Your task to perform on an android device: Go to notification settings Image 0: 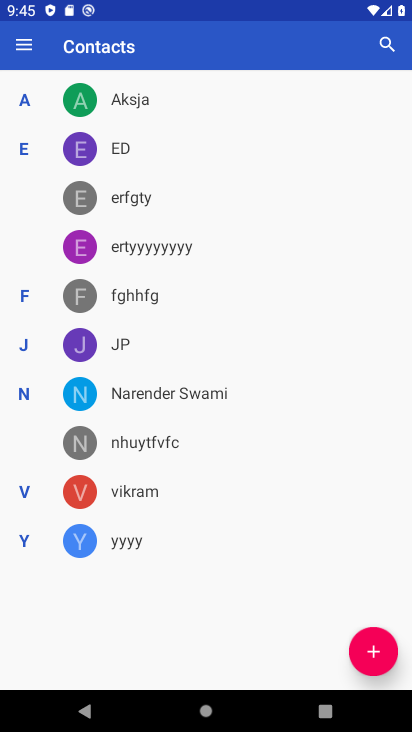
Step 0: press home button
Your task to perform on an android device: Go to notification settings Image 1: 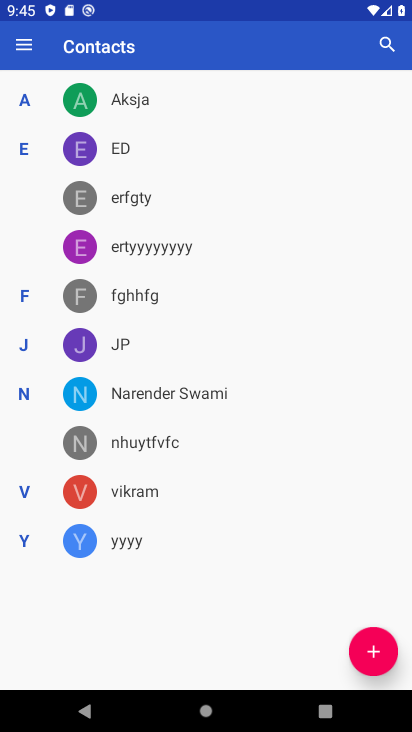
Step 1: press home button
Your task to perform on an android device: Go to notification settings Image 2: 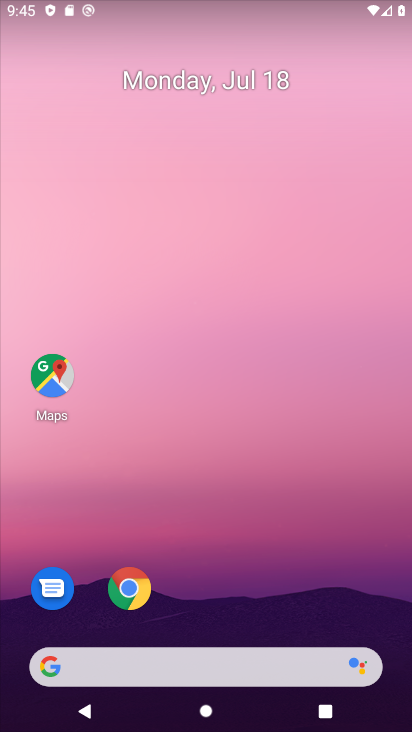
Step 2: drag from (234, 706) to (196, 103)
Your task to perform on an android device: Go to notification settings Image 3: 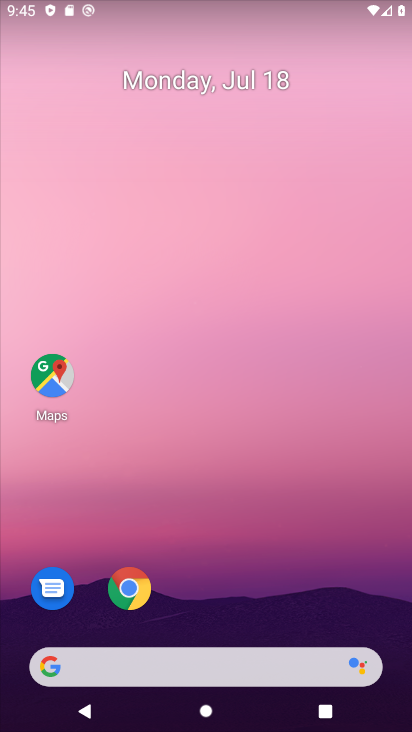
Step 3: drag from (260, 726) to (192, 100)
Your task to perform on an android device: Go to notification settings Image 4: 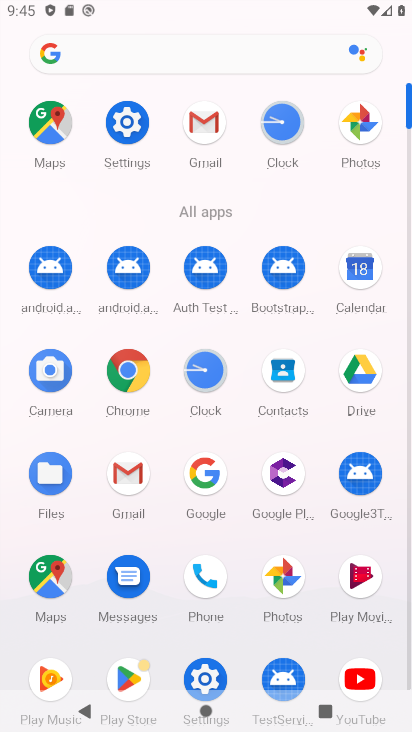
Step 4: click (132, 118)
Your task to perform on an android device: Go to notification settings Image 5: 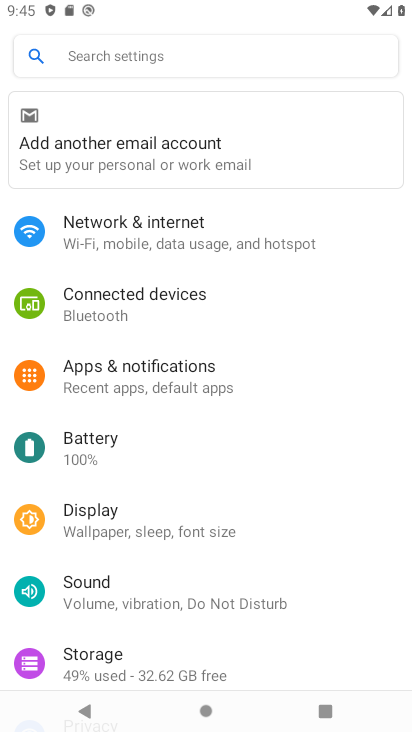
Step 5: click (160, 373)
Your task to perform on an android device: Go to notification settings Image 6: 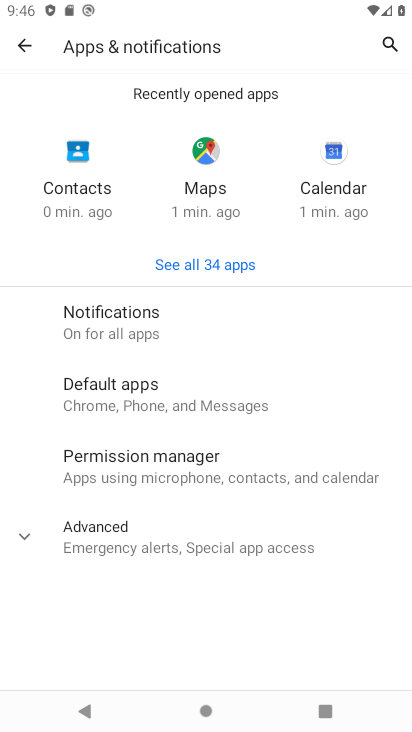
Step 6: click (110, 317)
Your task to perform on an android device: Go to notification settings Image 7: 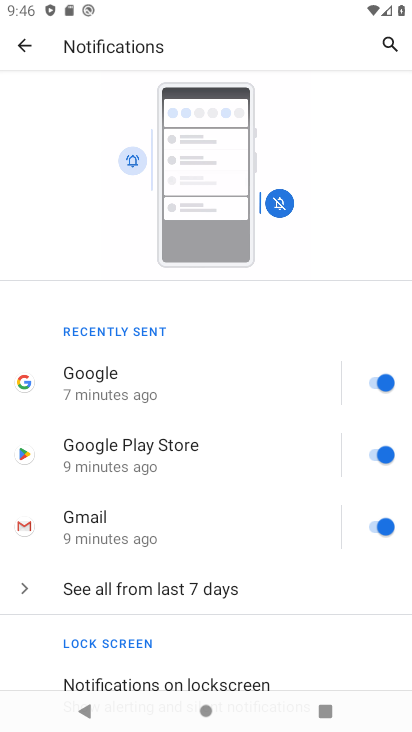
Step 7: task complete